Your task to perform on an android device: Check the news Image 0: 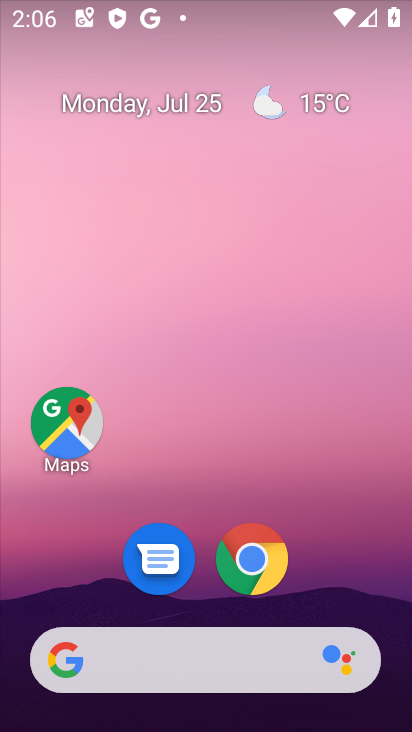
Step 0: click (205, 657)
Your task to perform on an android device: Check the news Image 1: 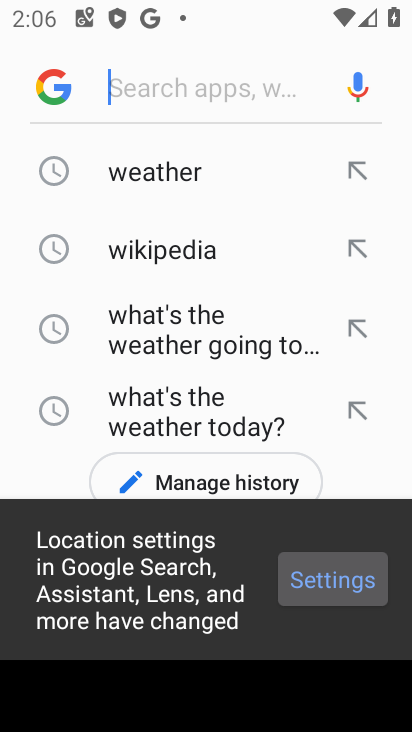
Step 1: click (173, 84)
Your task to perform on an android device: Check the news Image 2: 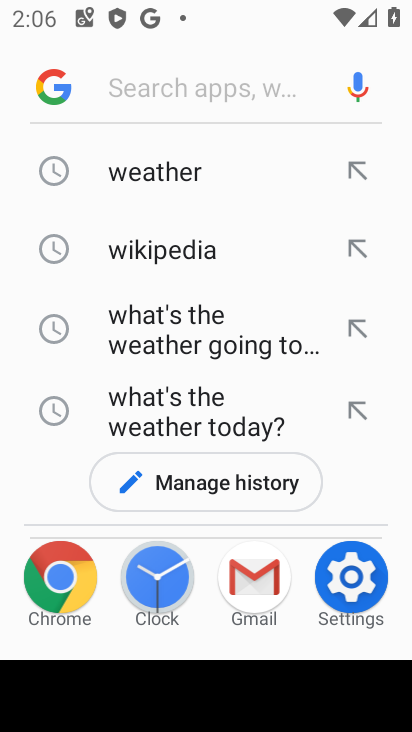
Step 2: type "news"
Your task to perform on an android device: Check the news Image 3: 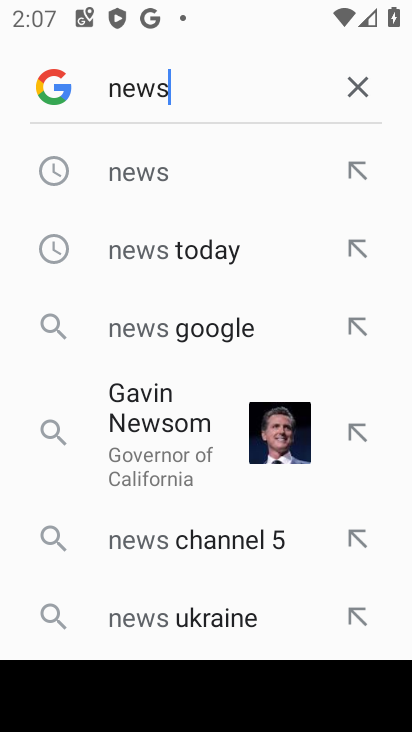
Step 3: click (147, 171)
Your task to perform on an android device: Check the news Image 4: 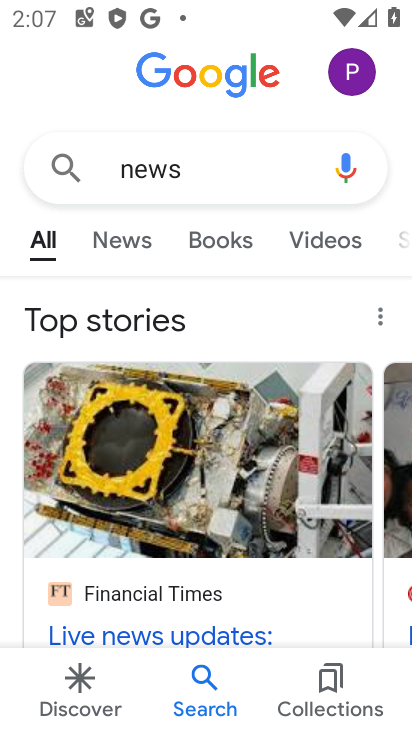
Step 4: task complete